Your task to perform on an android device: Open calendar and show me the fourth week of next month Image 0: 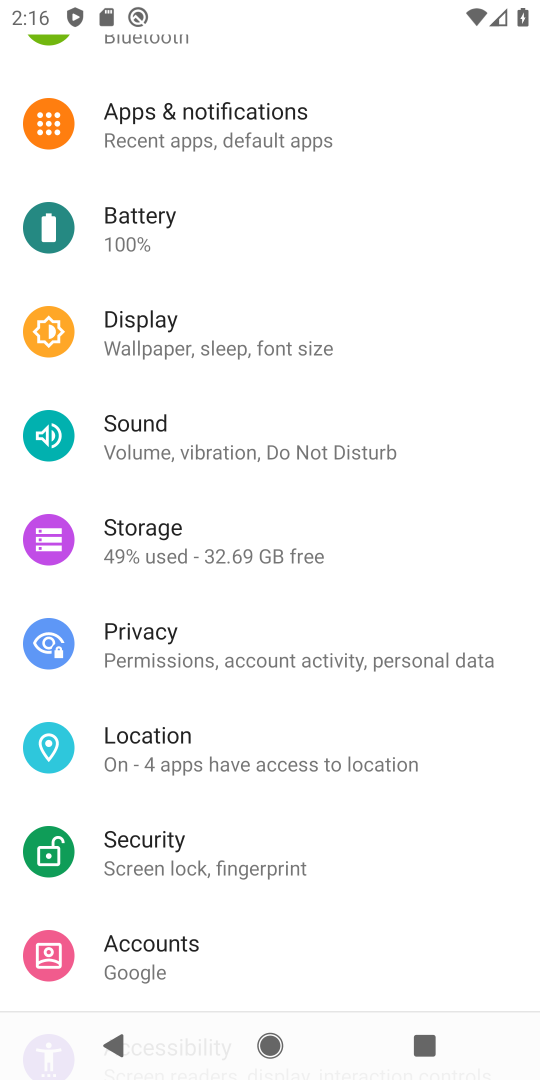
Step 0: press home button
Your task to perform on an android device: Open calendar and show me the fourth week of next month Image 1: 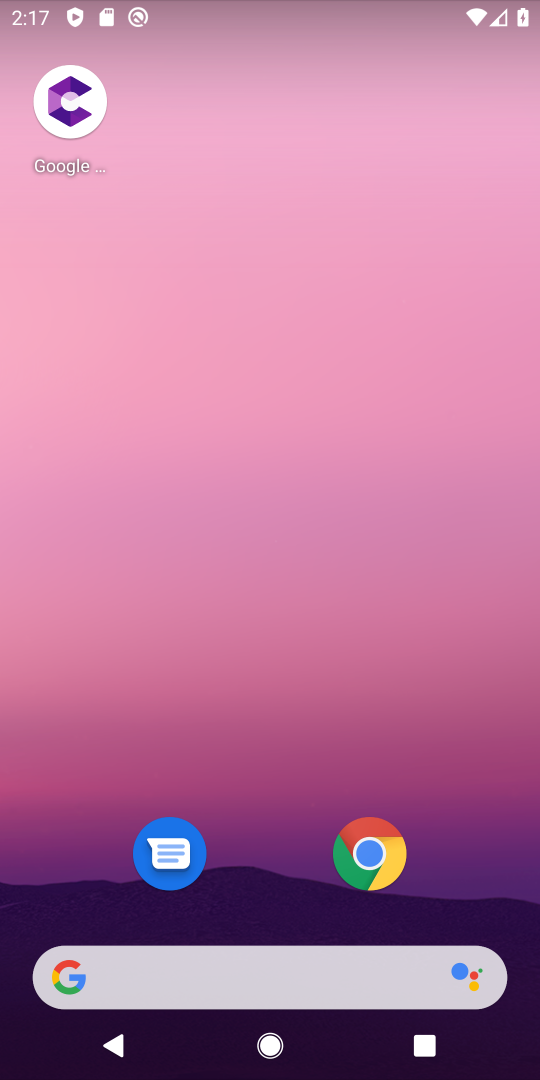
Step 1: drag from (272, 889) to (298, 102)
Your task to perform on an android device: Open calendar and show me the fourth week of next month Image 2: 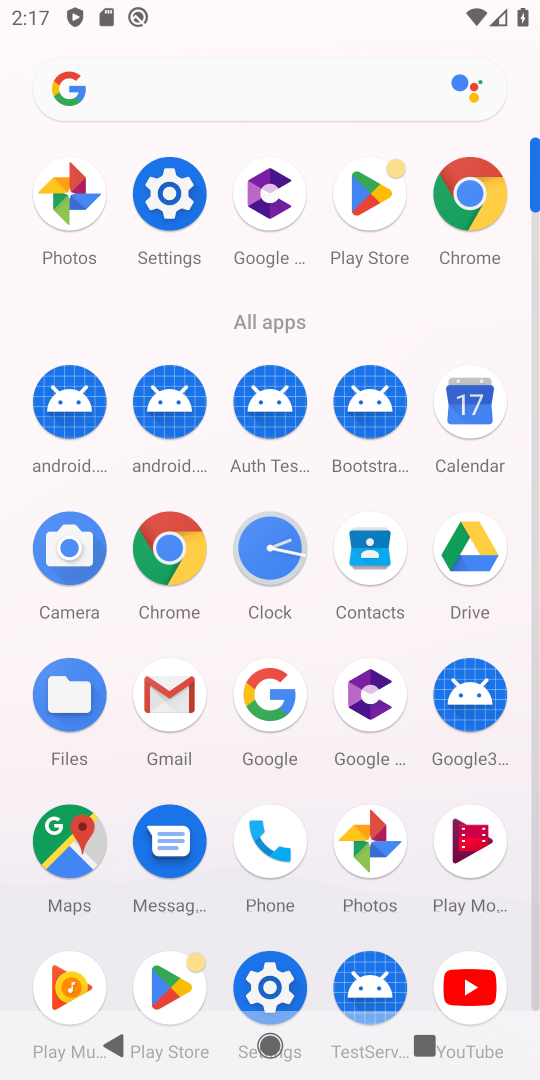
Step 2: click (481, 389)
Your task to perform on an android device: Open calendar and show me the fourth week of next month Image 3: 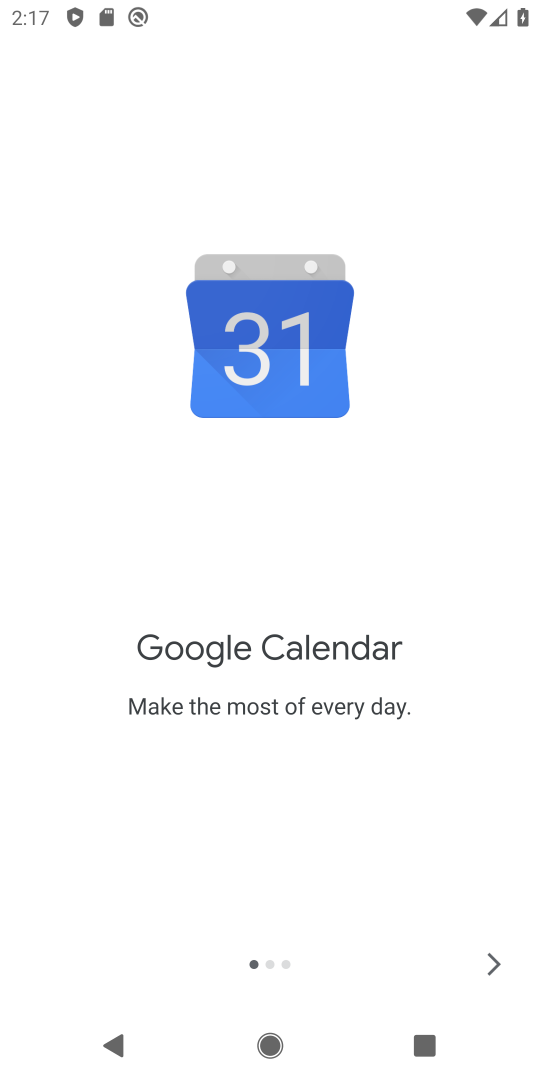
Step 3: click (490, 971)
Your task to perform on an android device: Open calendar and show me the fourth week of next month Image 4: 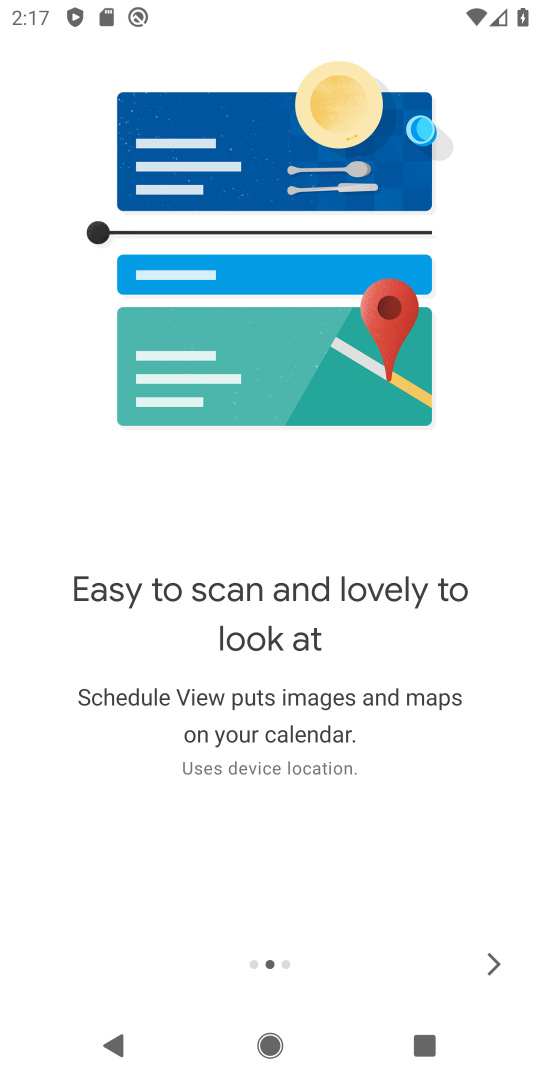
Step 4: click (497, 954)
Your task to perform on an android device: Open calendar and show me the fourth week of next month Image 5: 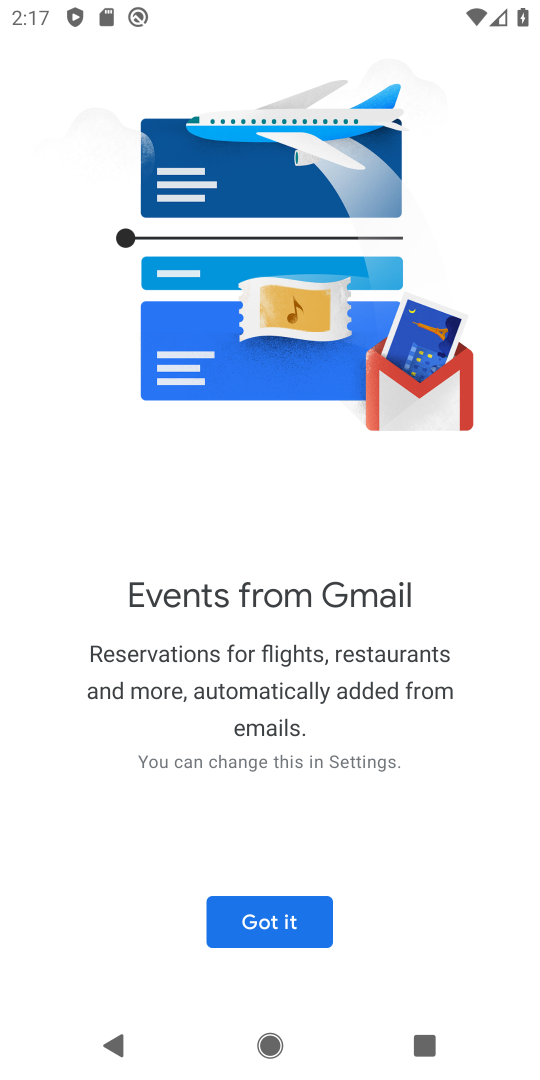
Step 5: click (265, 934)
Your task to perform on an android device: Open calendar and show me the fourth week of next month Image 6: 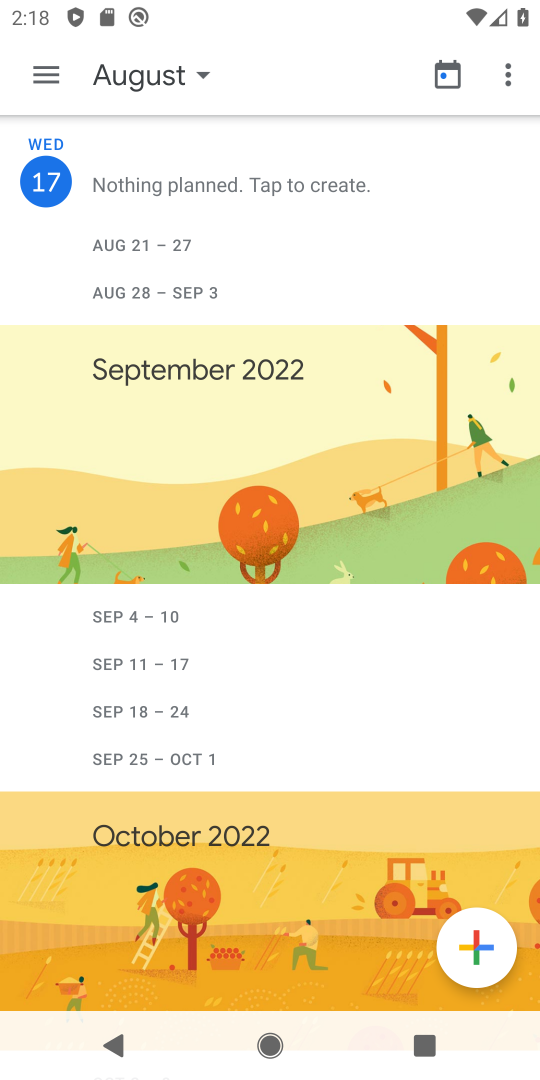
Step 6: click (197, 69)
Your task to perform on an android device: Open calendar and show me the fourth week of next month Image 7: 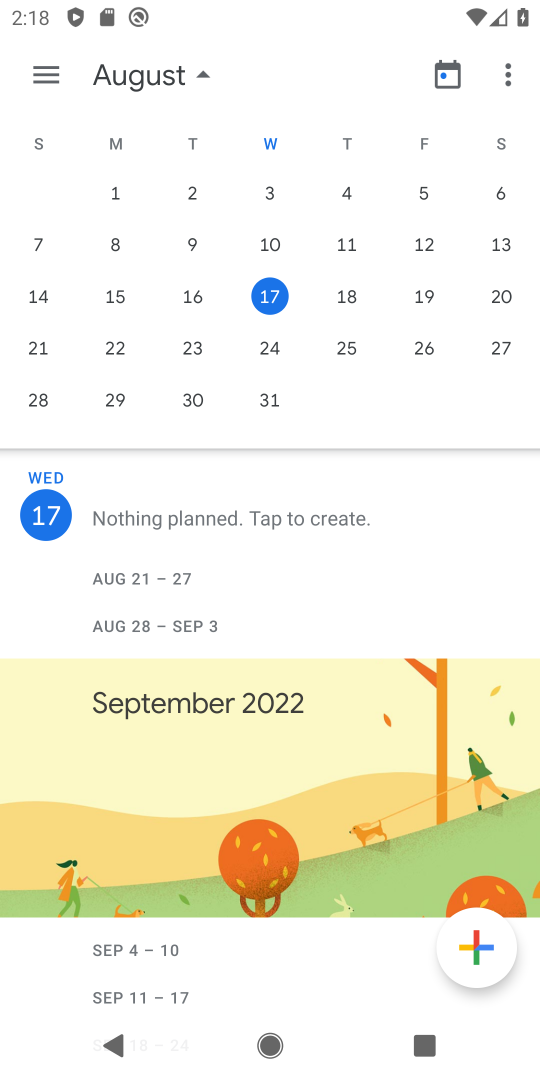
Step 7: drag from (407, 257) to (4, 243)
Your task to perform on an android device: Open calendar and show me the fourth week of next month Image 8: 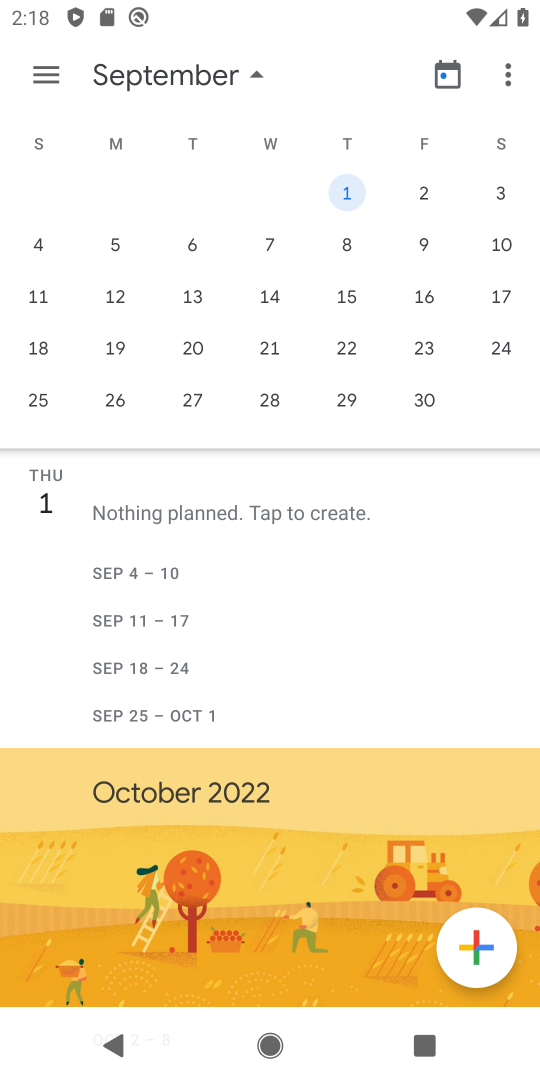
Step 8: click (272, 395)
Your task to perform on an android device: Open calendar and show me the fourth week of next month Image 9: 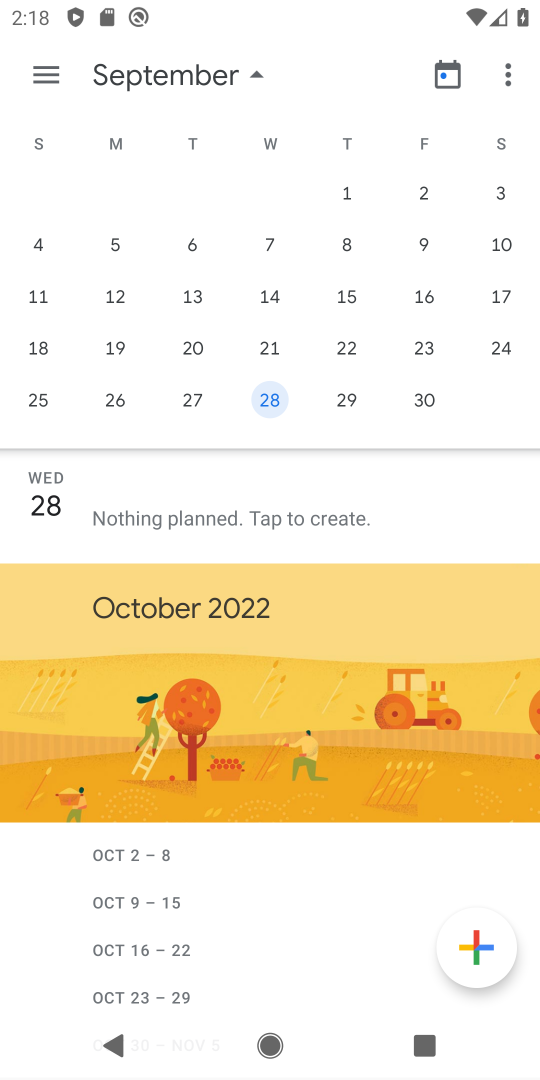
Step 9: task complete